Your task to perform on an android device: open the mobile data screen to see how much data has been used Image 0: 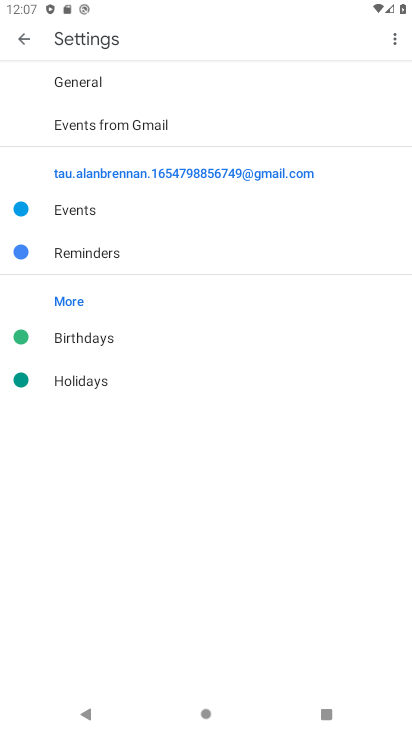
Step 0: press back button
Your task to perform on an android device: open the mobile data screen to see how much data has been used Image 1: 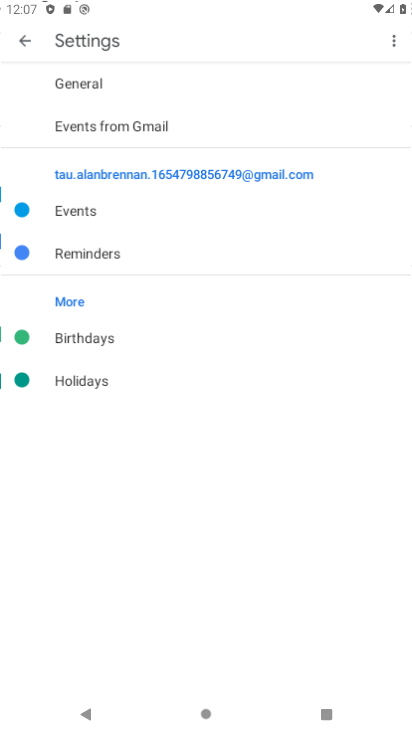
Step 1: press back button
Your task to perform on an android device: open the mobile data screen to see how much data has been used Image 2: 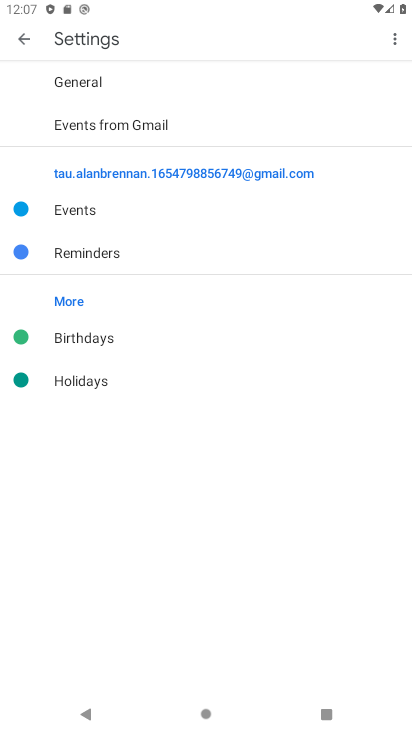
Step 2: press back button
Your task to perform on an android device: open the mobile data screen to see how much data has been used Image 3: 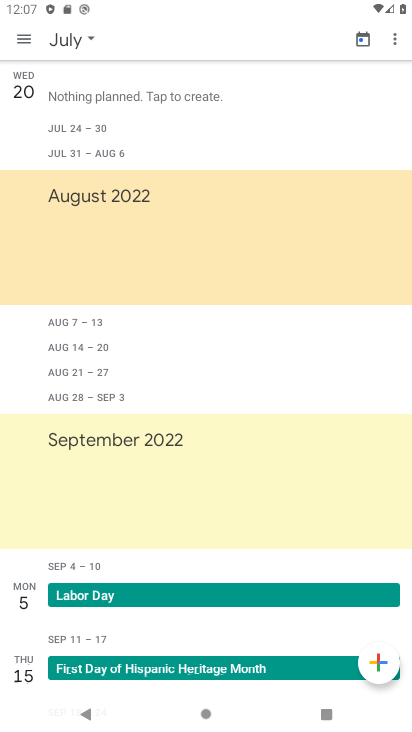
Step 3: press home button
Your task to perform on an android device: open the mobile data screen to see how much data has been used Image 4: 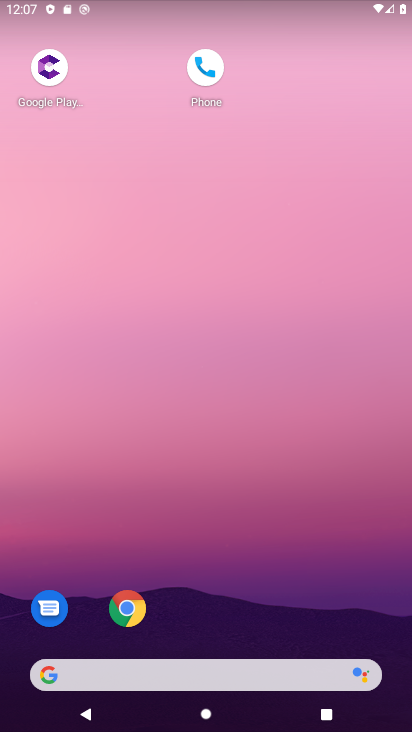
Step 4: drag from (269, 702) to (260, 143)
Your task to perform on an android device: open the mobile data screen to see how much data has been used Image 5: 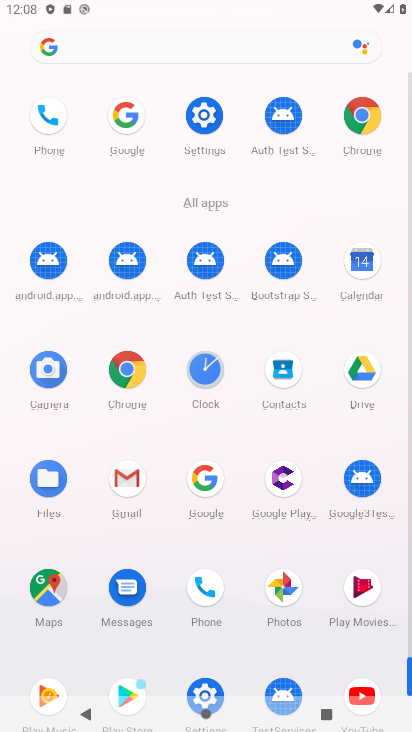
Step 5: click (206, 115)
Your task to perform on an android device: open the mobile data screen to see how much data has been used Image 6: 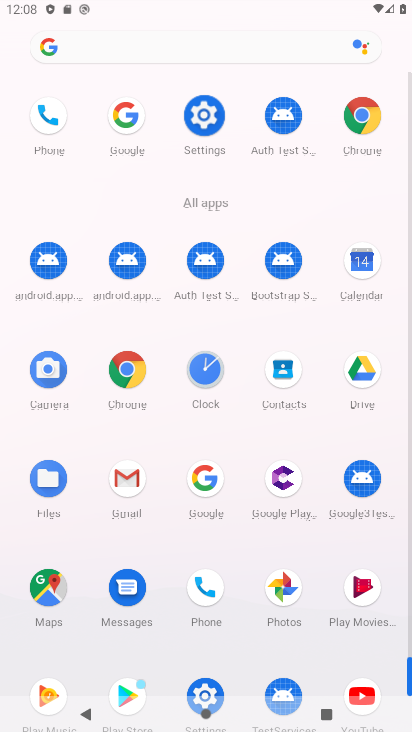
Step 6: click (206, 111)
Your task to perform on an android device: open the mobile data screen to see how much data has been used Image 7: 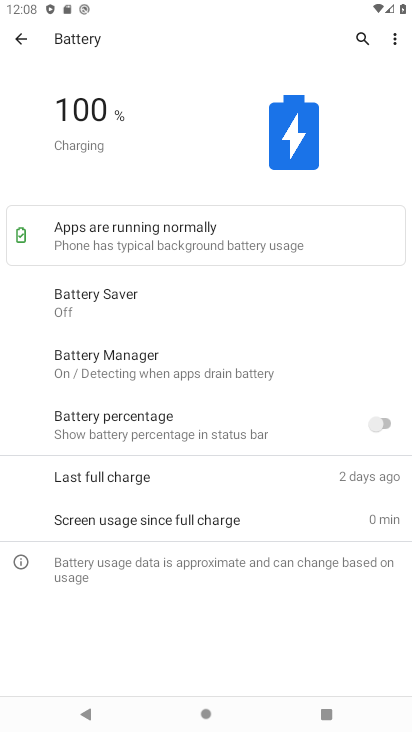
Step 7: click (20, 36)
Your task to perform on an android device: open the mobile data screen to see how much data has been used Image 8: 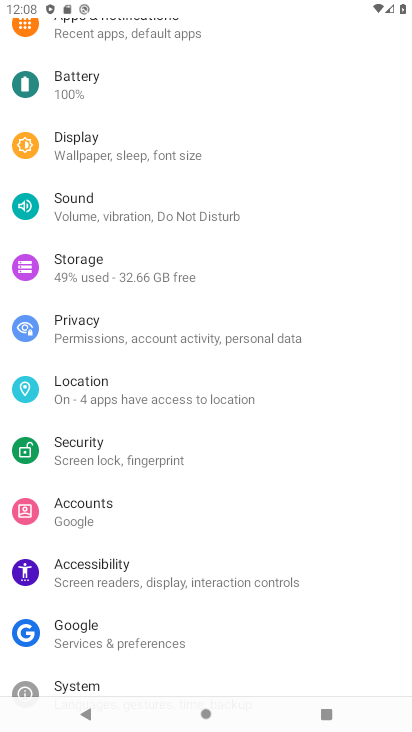
Step 8: drag from (103, 135) to (167, 539)
Your task to perform on an android device: open the mobile data screen to see how much data has been used Image 9: 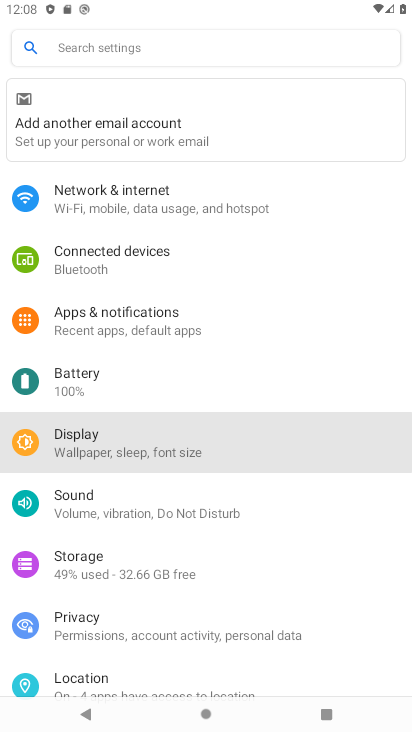
Step 9: drag from (155, 221) to (177, 508)
Your task to perform on an android device: open the mobile data screen to see how much data has been used Image 10: 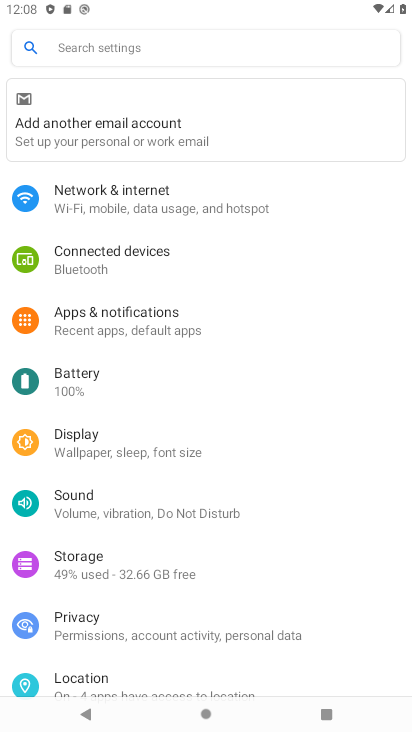
Step 10: click (111, 222)
Your task to perform on an android device: open the mobile data screen to see how much data has been used Image 11: 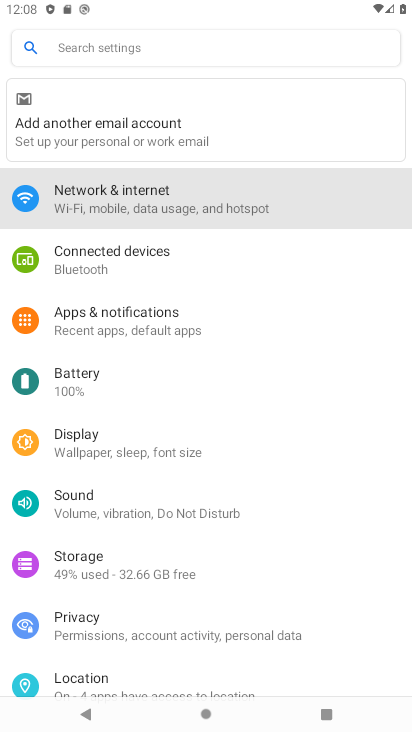
Step 11: click (110, 198)
Your task to perform on an android device: open the mobile data screen to see how much data has been used Image 12: 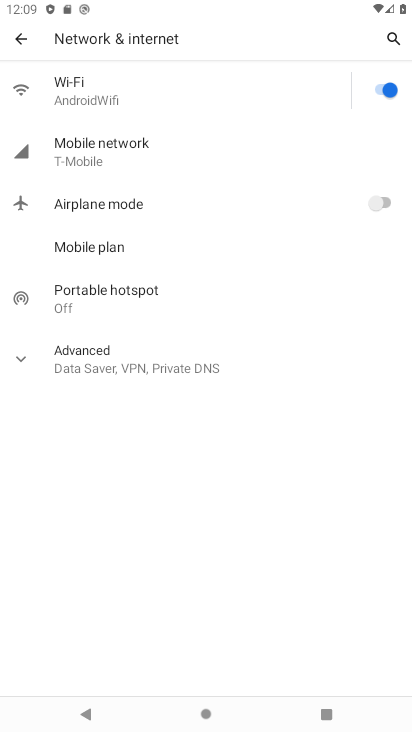
Step 12: click (84, 160)
Your task to perform on an android device: open the mobile data screen to see how much data has been used Image 13: 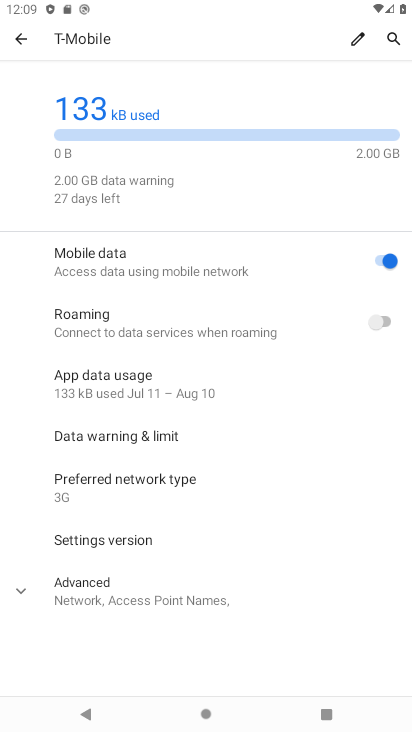
Step 13: task complete